Your task to perform on an android device: Go to display settings Image 0: 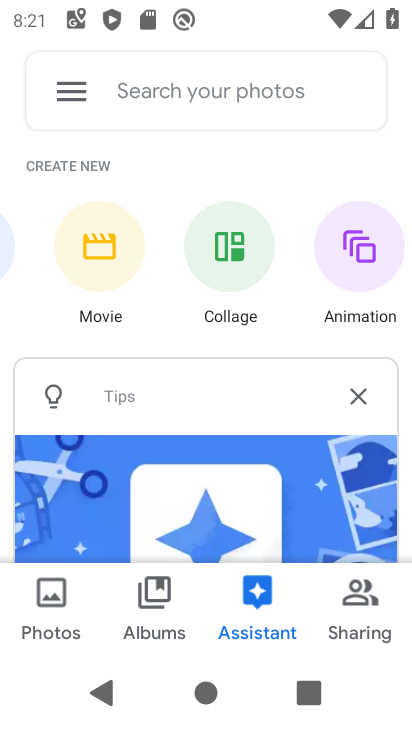
Step 0: press home button
Your task to perform on an android device: Go to display settings Image 1: 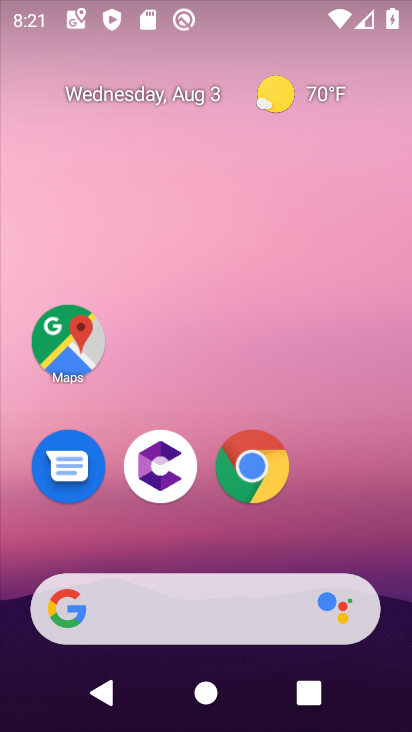
Step 1: drag from (352, 522) to (317, 114)
Your task to perform on an android device: Go to display settings Image 2: 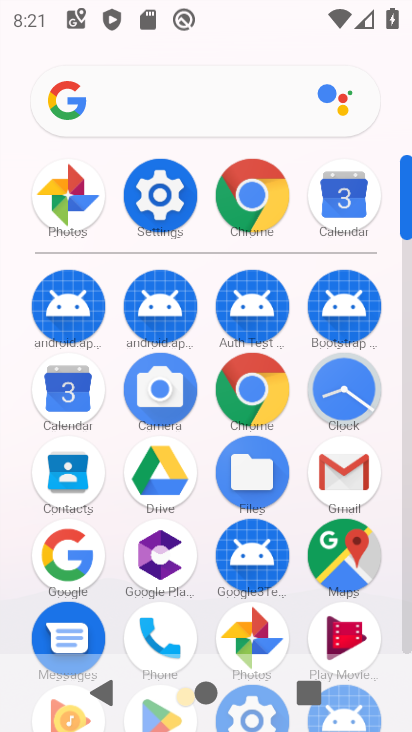
Step 2: click (160, 196)
Your task to perform on an android device: Go to display settings Image 3: 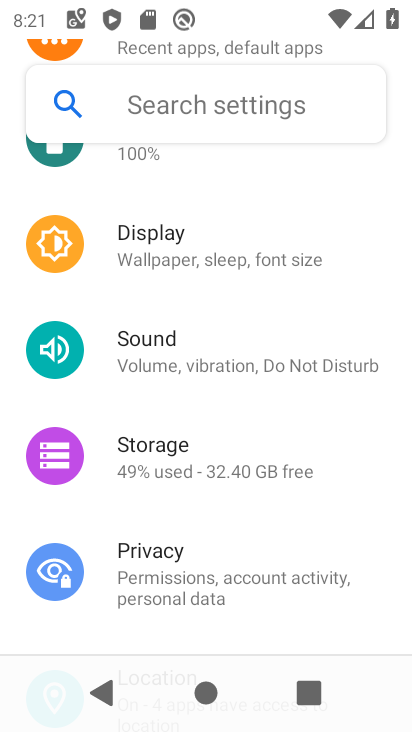
Step 3: click (202, 263)
Your task to perform on an android device: Go to display settings Image 4: 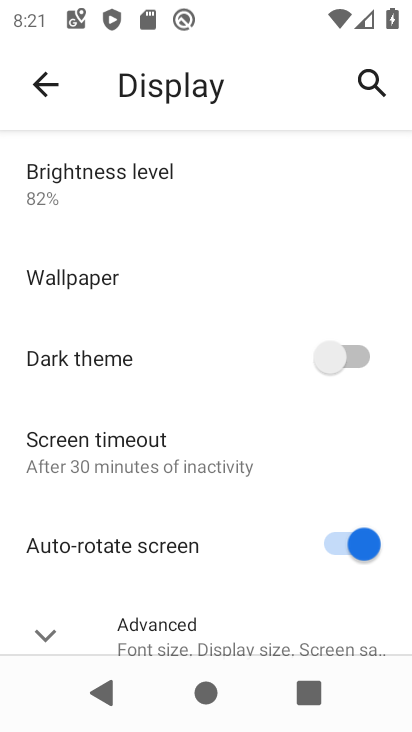
Step 4: task complete